Your task to perform on an android device: Open the stopwatch Image 0: 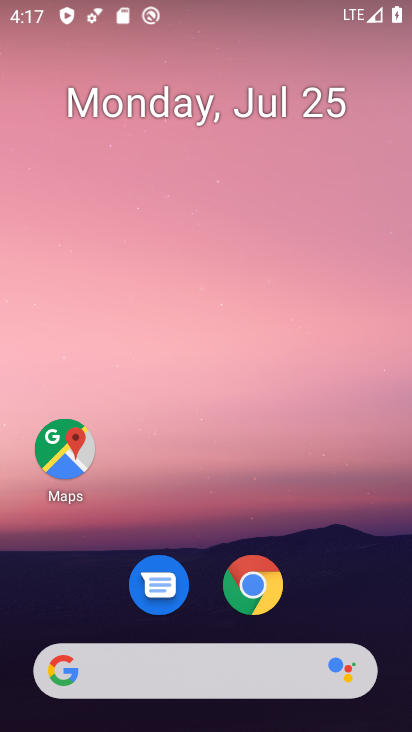
Step 0: drag from (352, 569) to (340, 69)
Your task to perform on an android device: Open the stopwatch Image 1: 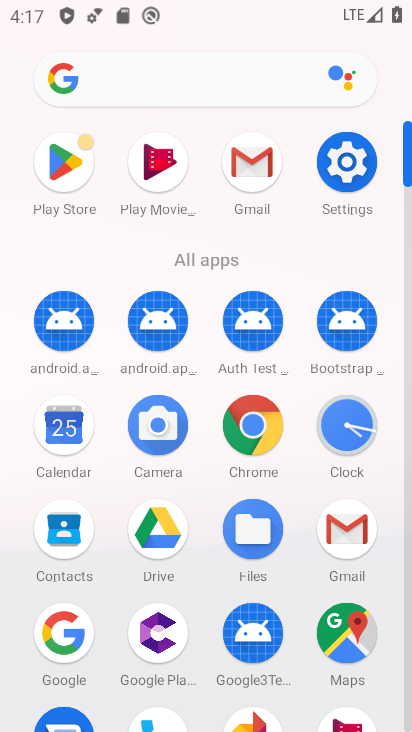
Step 1: click (348, 422)
Your task to perform on an android device: Open the stopwatch Image 2: 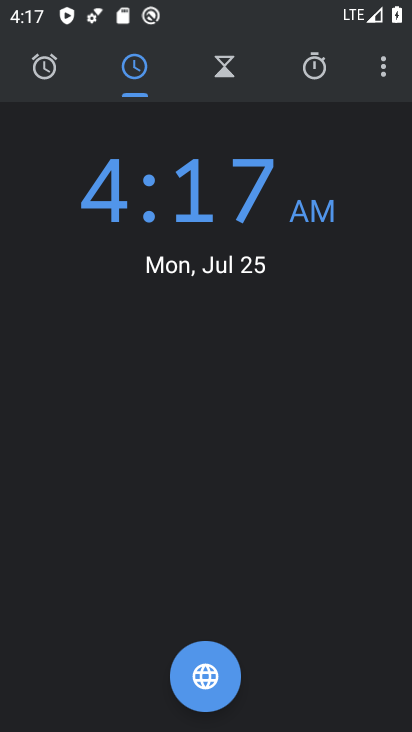
Step 2: click (311, 72)
Your task to perform on an android device: Open the stopwatch Image 3: 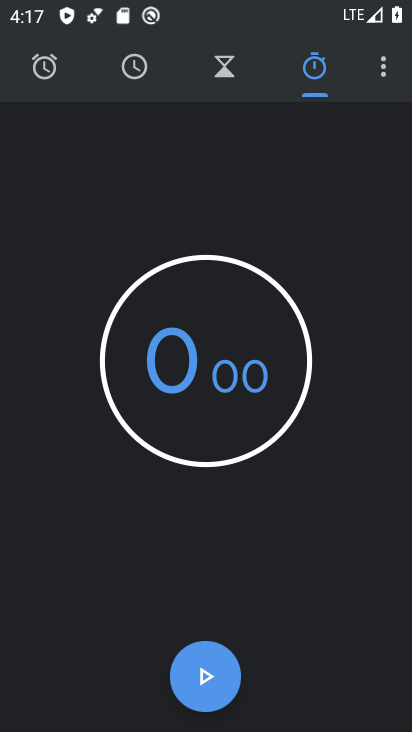
Step 3: task complete